Your task to perform on an android device: open wifi settings Image 0: 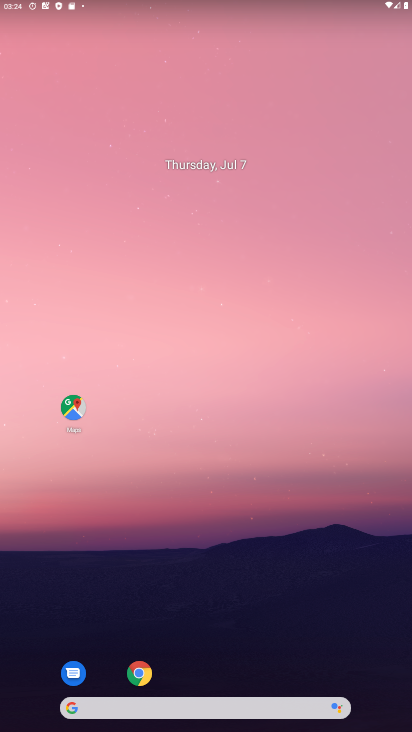
Step 0: drag from (182, 672) to (223, 275)
Your task to perform on an android device: open wifi settings Image 1: 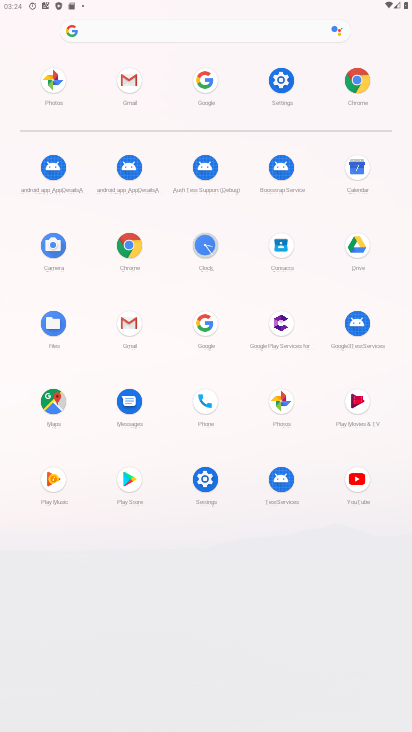
Step 1: click (290, 95)
Your task to perform on an android device: open wifi settings Image 2: 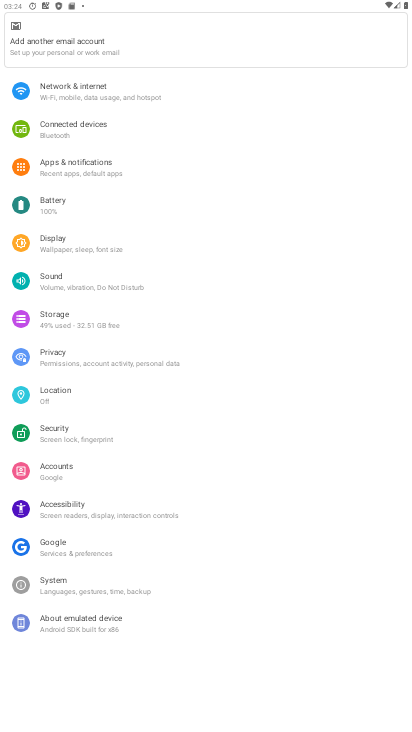
Step 2: click (123, 89)
Your task to perform on an android device: open wifi settings Image 3: 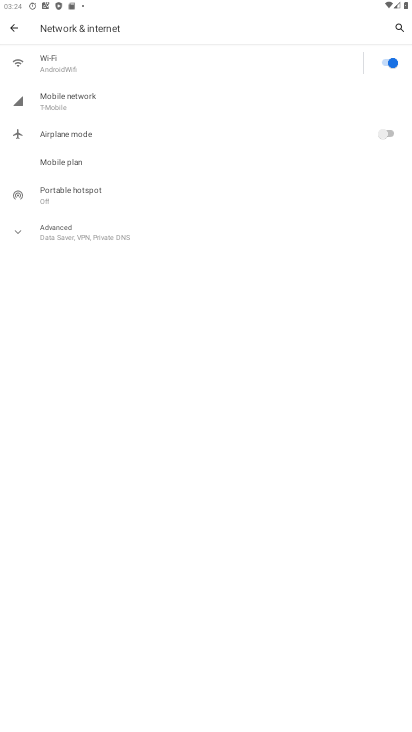
Step 3: click (84, 72)
Your task to perform on an android device: open wifi settings Image 4: 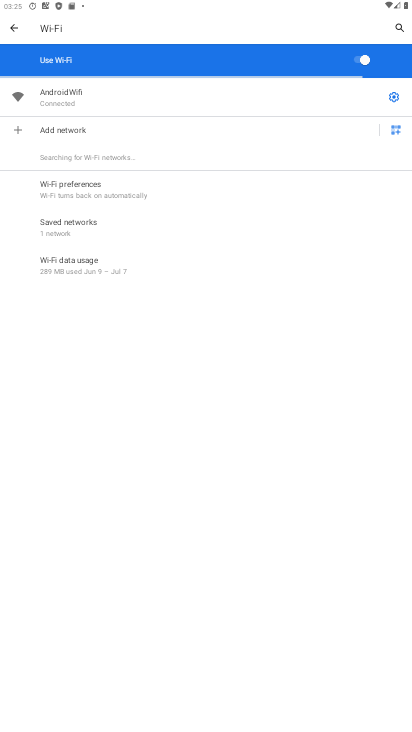
Step 4: task complete